Your task to perform on an android device: Is it going to rain this weekend? Image 0: 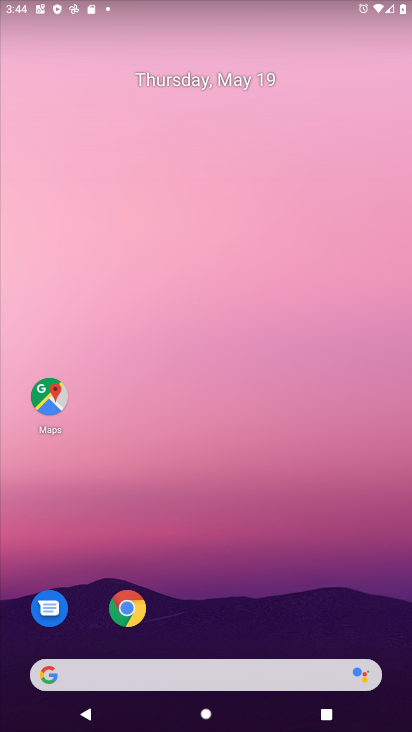
Step 0: click (254, 678)
Your task to perform on an android device: Is it going to rain this weekend? Image 1: 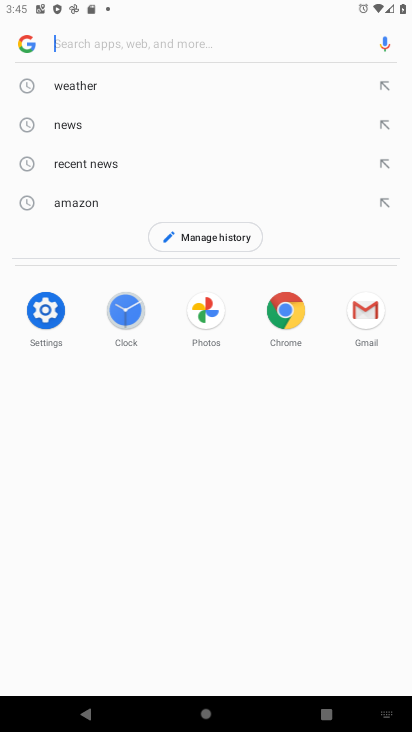
Step 1: click (117, 97)
Your task to perform on an android device: Is it going to rain this weekend? Image 2: 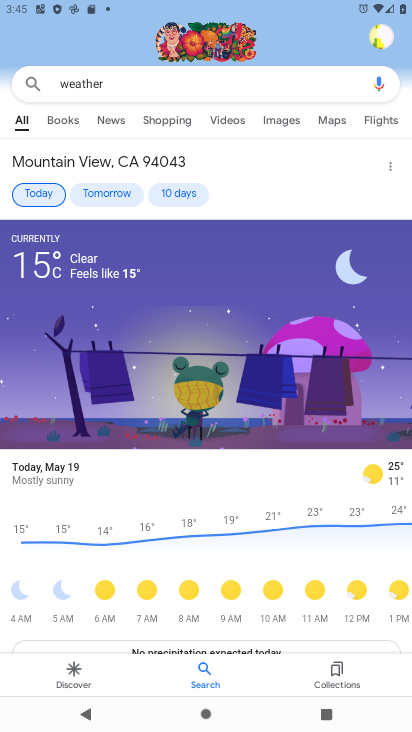
Step 2: click (185, 191)
Your task to perform on an android device: Is it going to rain this weekend? Image 3: 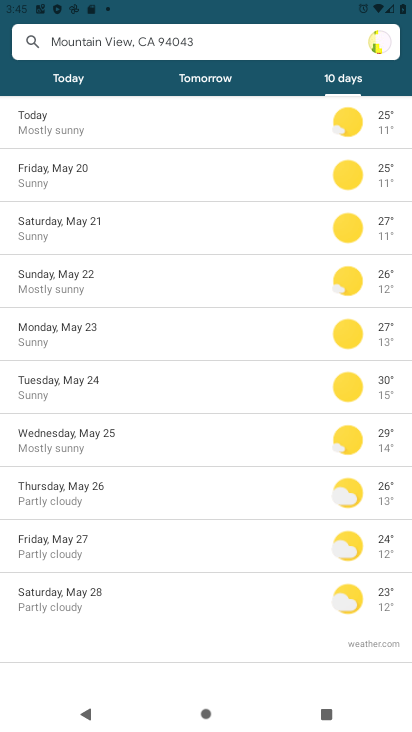
Step 3: task complete